Your task to perform on an android device: Empty the shopping cart on target.com. Add dell alienware to the cart on target.com Image 0: 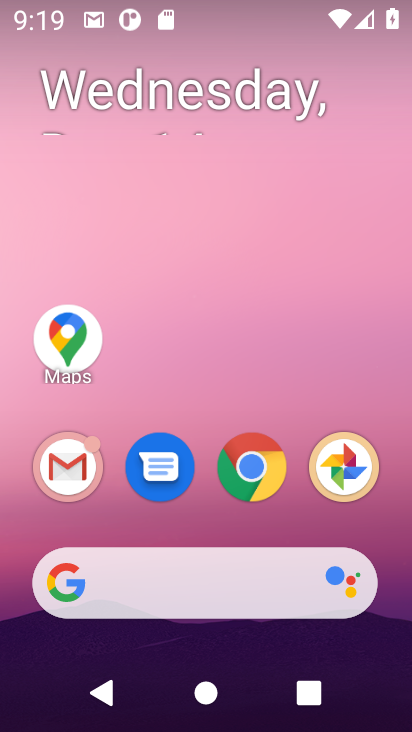
Step 0: click (245, 462)
Your task to perform on an android device: Empty the shopping cart on target.com. Add dell alienware to the cart on target.com Image 1: 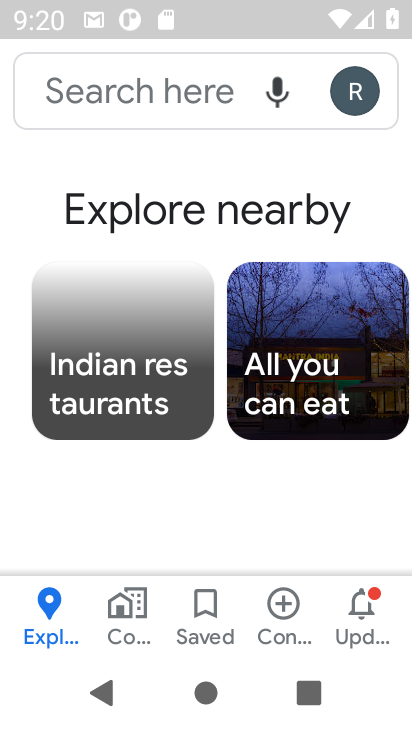
Step 1: press home button
Your task to perform on an android device: Empty the shopping cart on target.com. Add dell alienware to the cart on target.com Image 2: 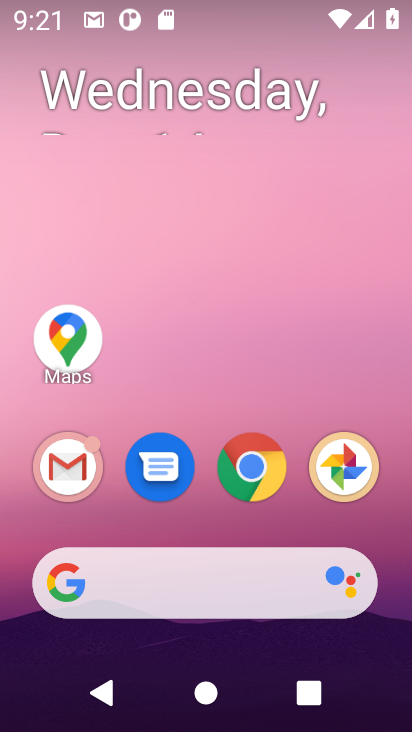
Step 2: click (273, 474)
Your task to perform on an android device: Empty the shopping cart on target.com. Add dell alienware to the cart on target.com Image 3: 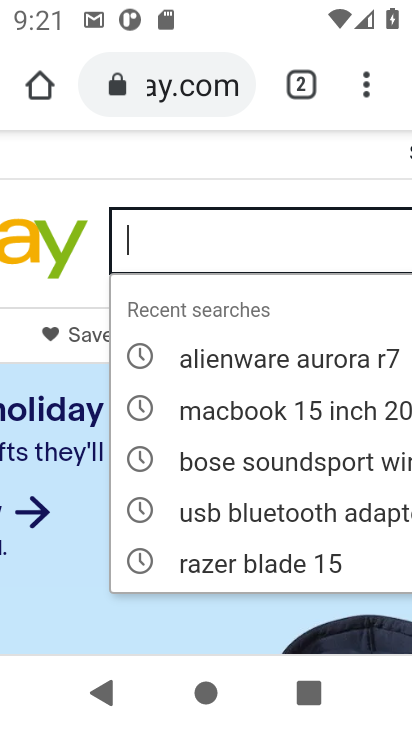
Step 3: click (183, 107)
Your task to perform on an android device: Empty the shopping cart on target.com. Add dell alienware to the cart on target.com Image 4: 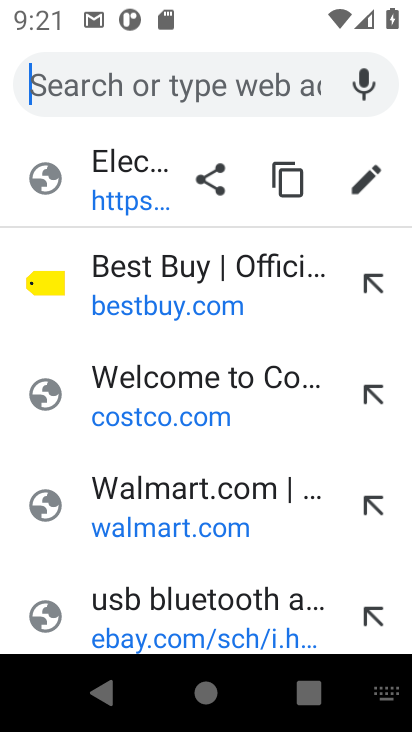
Step 4: type "target"
Your task to perform on an android device: Empty the shopping cart on target.com. Add dell alienware to the cart on target.com Image 5: 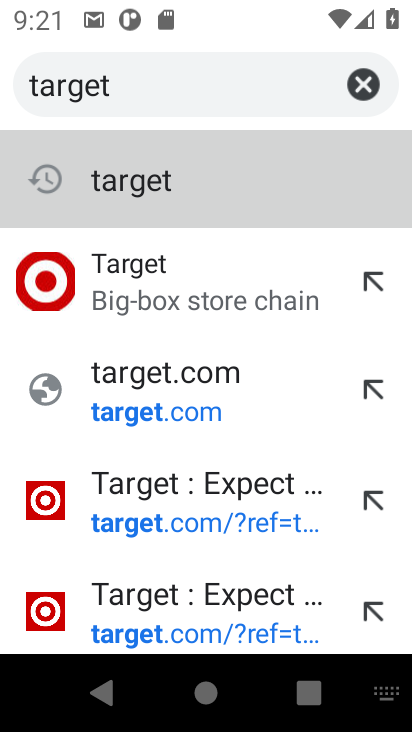
Step 5: click (176, 290)
Your task to perform on an android device: Empty the shopping cart on target.com. Add dell alienware to the cart on target.com Image 6: 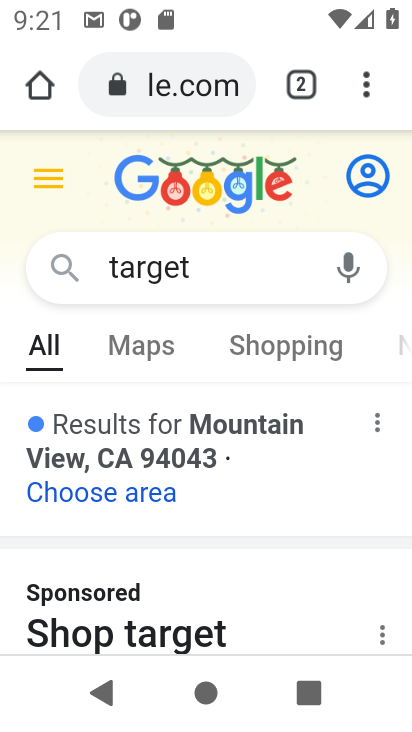
Step 6: drag from (270, 626) to (241, 270)
Your task to perform on an android device: Empty the shopping cart on target.com. Add dell alienware to the cart on target.com Image 7: 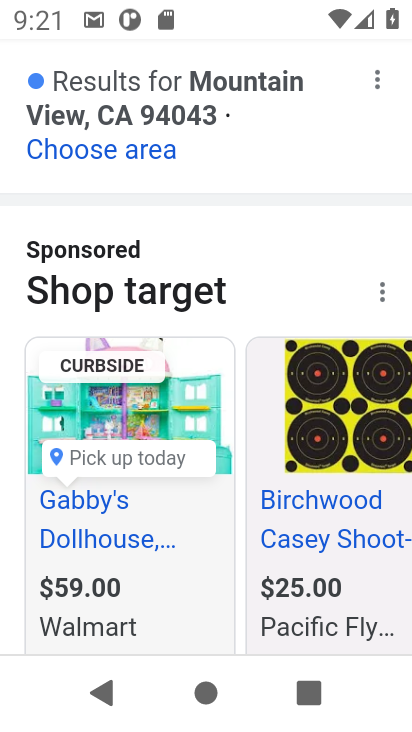
Step 7: drag from (202, 563) to (222, 25)
Your task to perform on an android device: Empty the shopping cart on target.com. Add dell alienware to the cart on target.com Image 8: 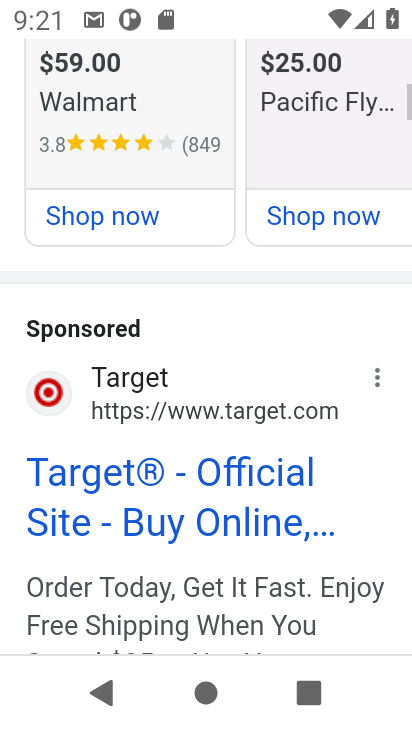
Step 8: click (230, 434)
Your task to perform on an android device: Empty the shopping cart on target.com. Add dell alienware to the cart on target.com Image 9: 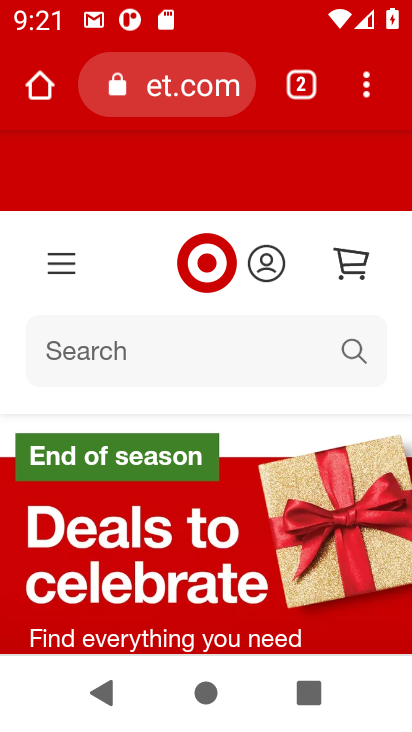
Step 9: click (164, 360)
Your task to perform on an android device: Empty the shopping cart on target.com. Add dell alienware to the cart on target.com Image 10: 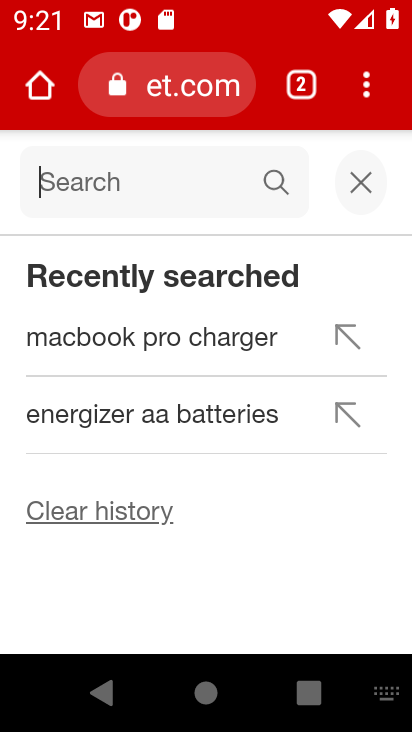
Step 10: type "dell alienware"
Your task to perform on an android device: Empty the shopping cart on target.com. Add dell alienware to the cart on target.com Image 11: 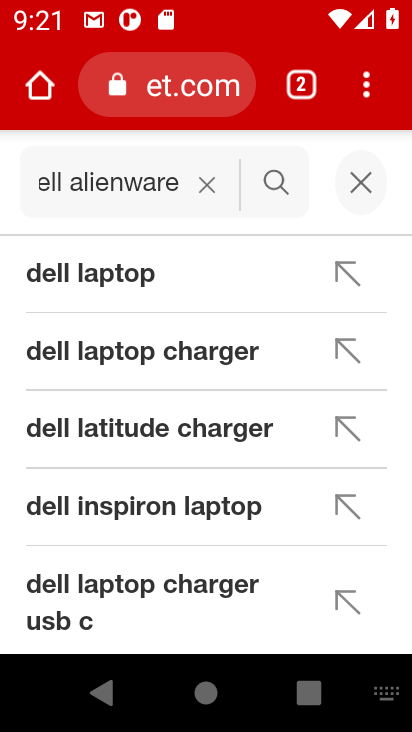
Step 11: click (266, 202)
Your task to perform on an android device: Empty the shopping cart on target.com. Add dell alienware to the cart on target.com Image 12: 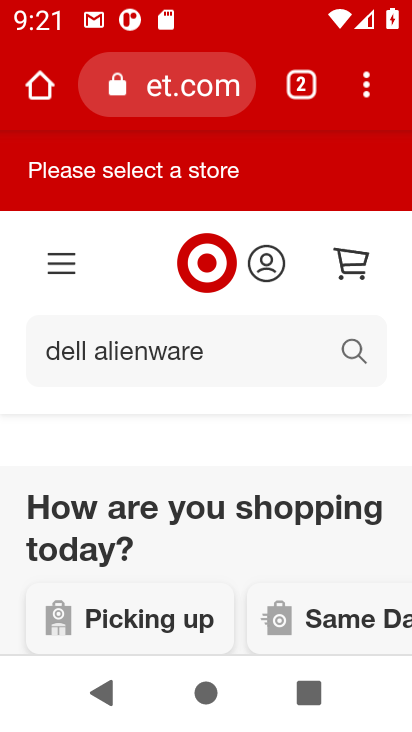
Step 12: drag from (247, 533) to (224, 172)
Your task to perform on an android device: Empty the shopping cart on target.com. Add dell alienware to the cart on target.com Image 13: 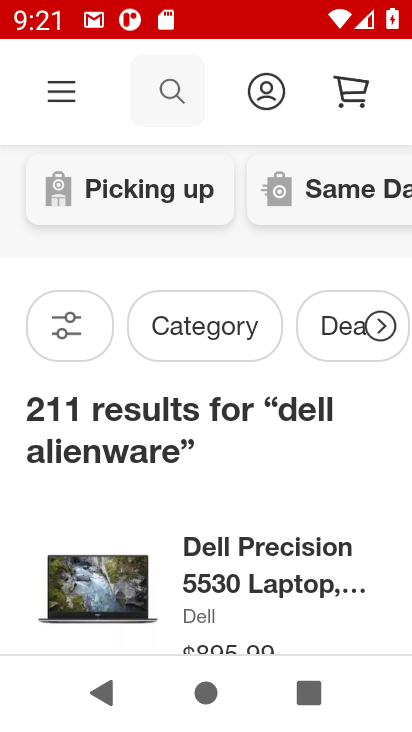
Step 13: click (281, 581)
Your task to perform on an android device: Empty the shopping cart on target.com. Add dell alienware to the cart on target.com Image 14: 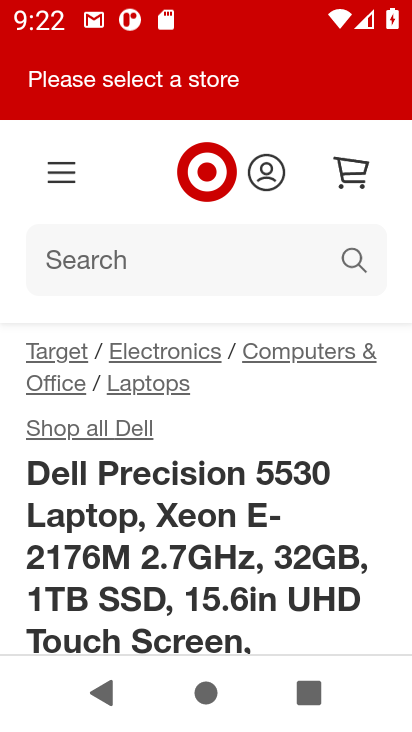
Step 14: drag from (281, 581) to (202, 142)
Your task to perform on an android device: Empty the shopping cart on target.com. Add dell alienware to the cart on target.com Image 15: 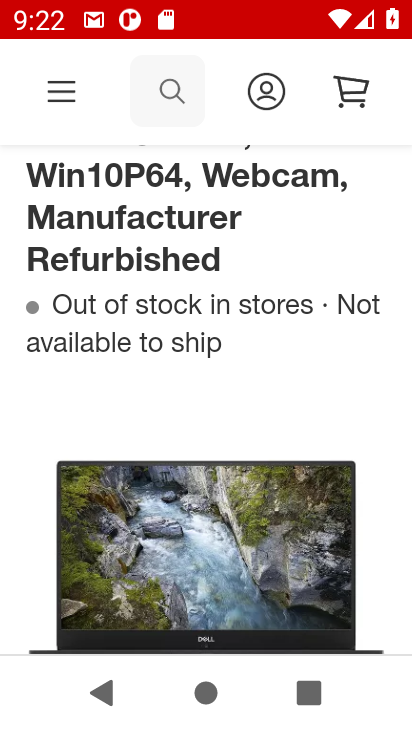
Step 15: drag from (211, 472) to (183, 110)
Your task to perform on an android device: Empty the shopping cart on target.com. Add dell alienware to the cart on target.com Image 16: 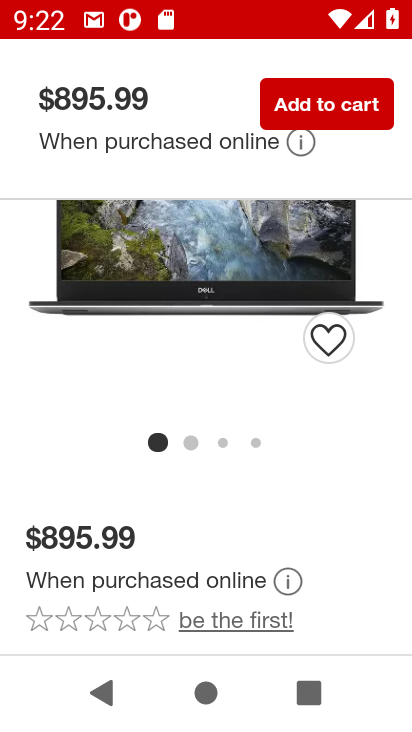
Step 16: click (188, 522)
Your task to perform on an android device: Empty the shopping cart on target.com. Add dell alienware to the cart on target.com Image 17: 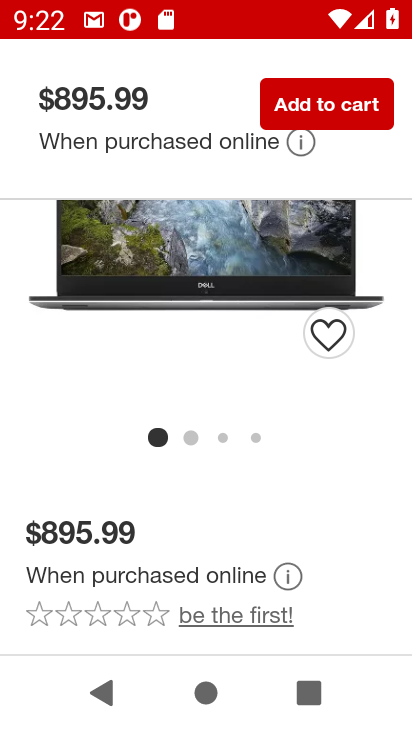
Step 17: click (331, 109)
Your task to perform on an android device: Empty the shopping cart on target.com. Add dell alienware to the cart on target.com Image 18: 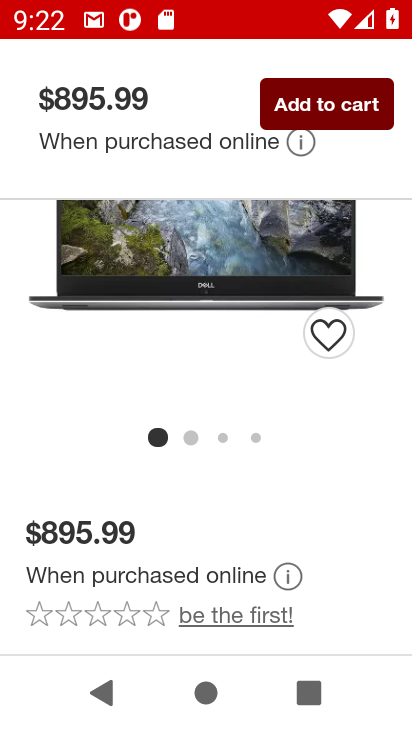
Step 18: task complete